Your task to perform on an android device: Toggle the flashlight Image 0: 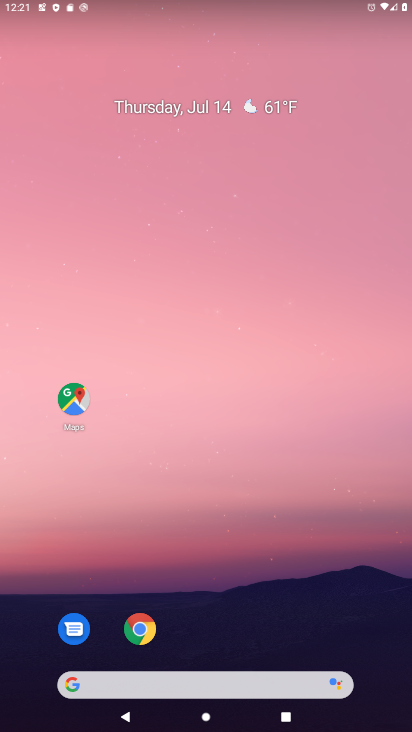
Step 0: drag from (243, 608) to (179, 125)
Your task to perform on an android device: Toggle the flashlight Image 1: 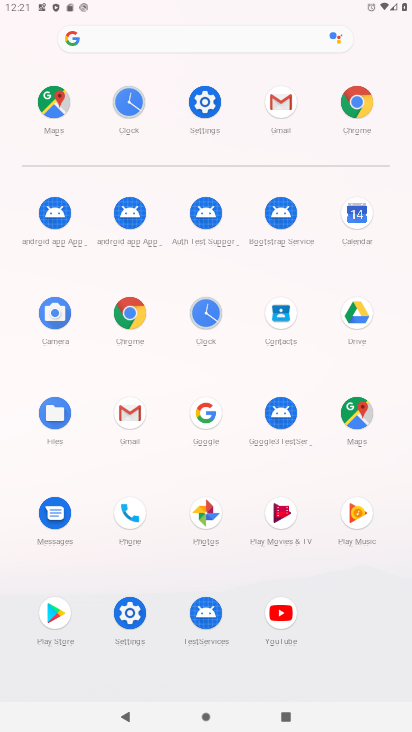
Step 1: click (204, 104)
Your task to perform on an android device: Toggle the flashlight Image 2: 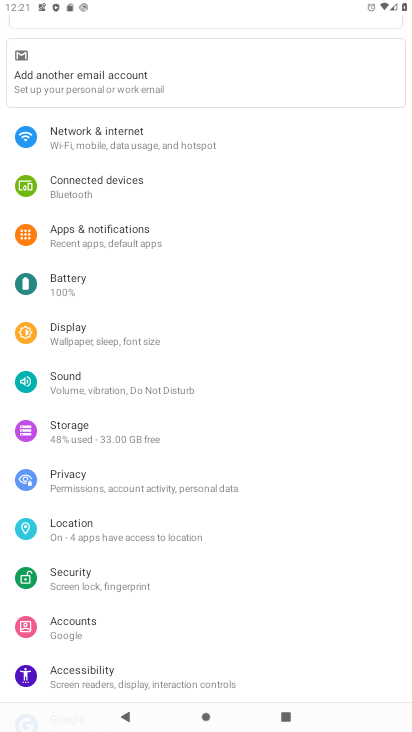
Step 2: click (65, 327)
Your task to perform on an android device: Toggle the flashlight Image 3: 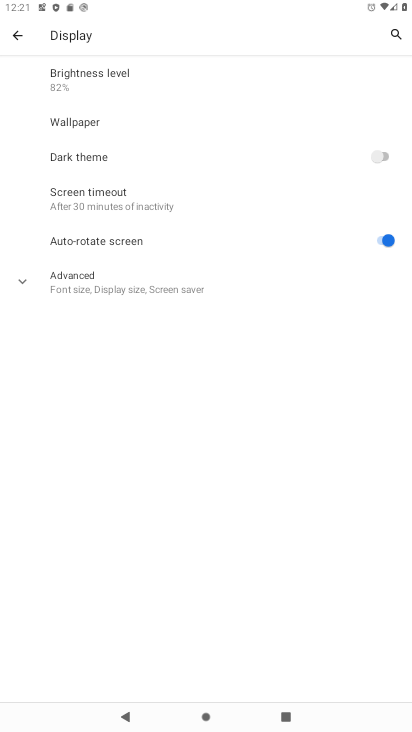
Step 3: task complete